Your task to perform on an android device: change notification settings in the gmail app Image 0: 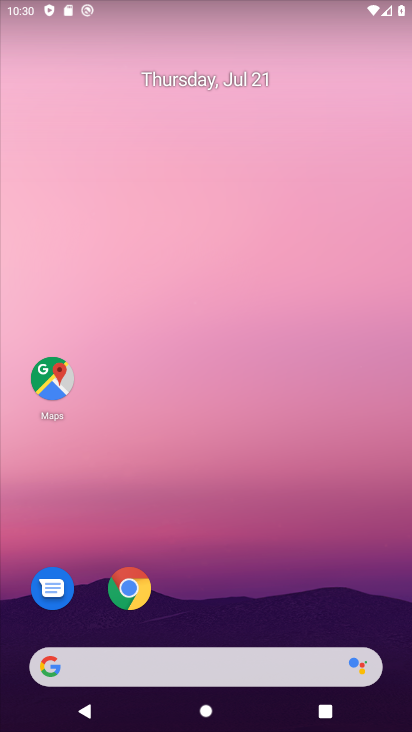
Step 0: drag from (163, 626) to (191, 408)
Your task to perform on an android device: change notification settings in the gmail app Image 1: 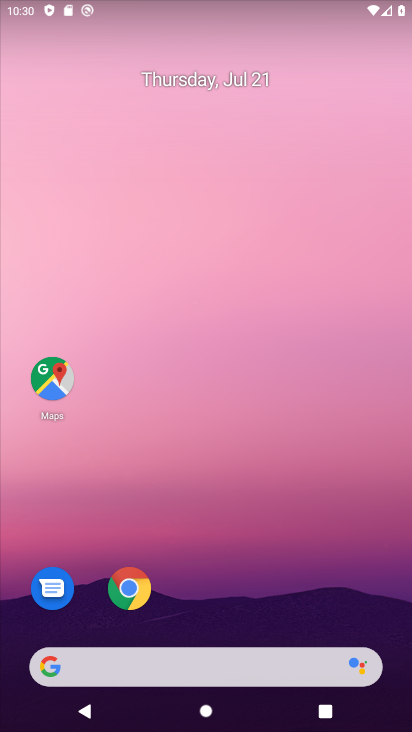
Step 1: drag from (211, 537) to (298, 44)
Your task to perform on an android device: change notification settings in the gmail app Image 2: 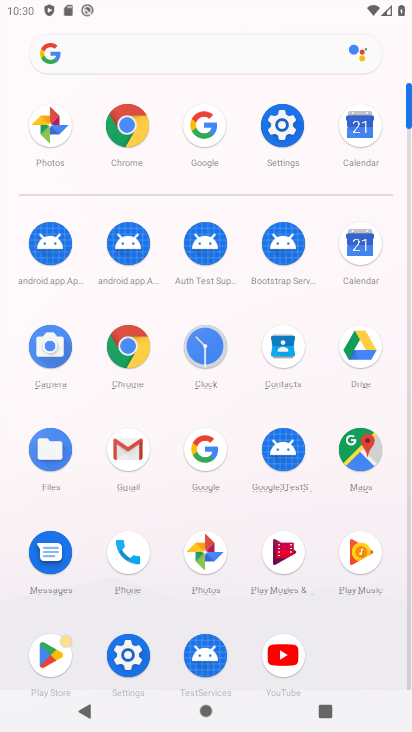
Step 2: click (125, 446)
Your task to perform on an android device: change notification settings in the gmail app Image 3: 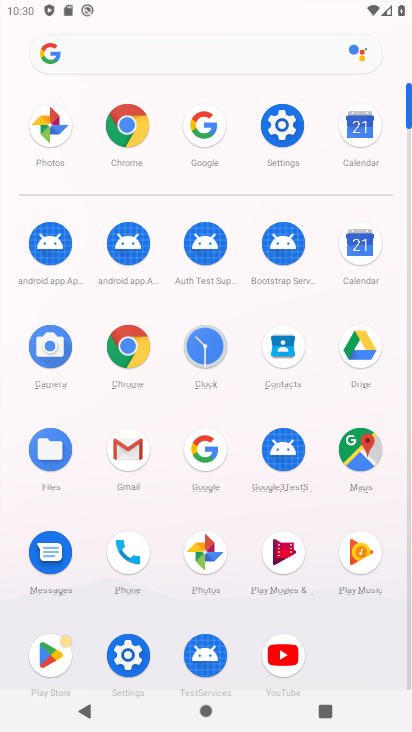
Step 3: click (125, 446)
Your task to perform on an android device: change notification settings in the gmail app Image 4: 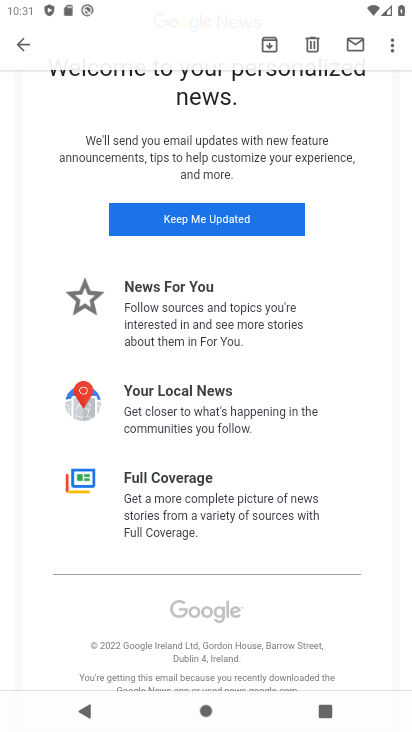
Step 4: drag from (269, 314) to (273, 709)
Your task to perform on an android device: change notification settings in the gmail app Image 5: 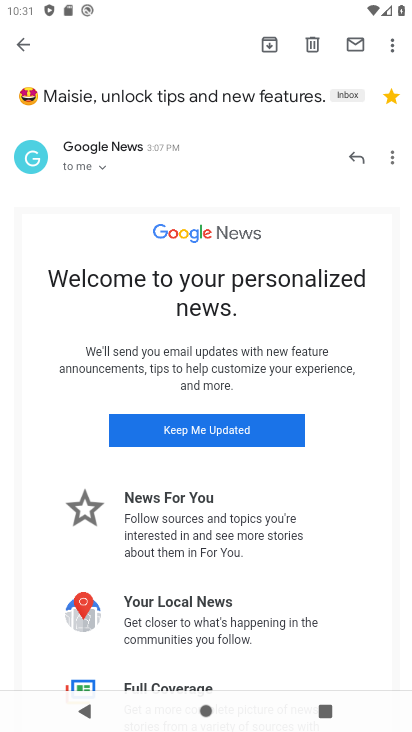
Step 5: click (32, 53)
Your task to perform on an android device: change notification settings in the gmail app Image 6: 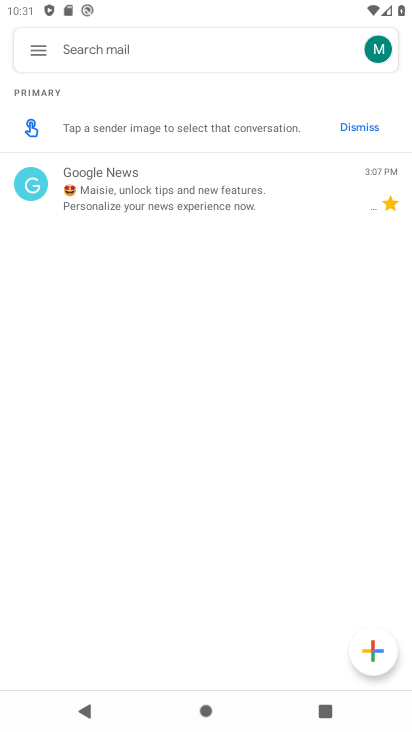
Step 6: click (38, 50)
Your task to perform on an android device: change notification settings in the gmail app Image 7: 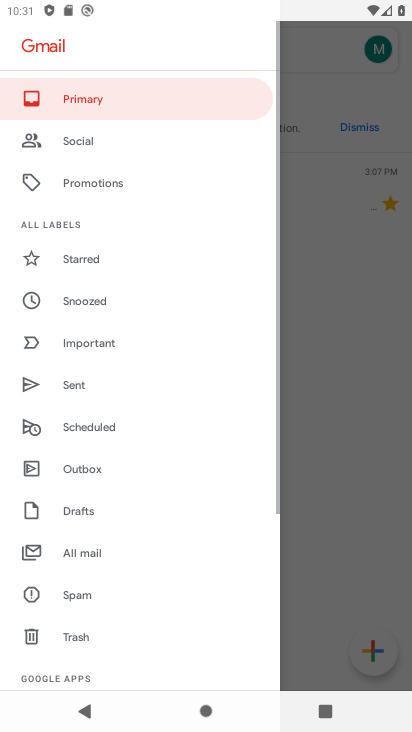
Step 7: drag from (112, 316) to (132, 20)
Your task to perform on an android device: change notification settings in the gmail app Image 8: 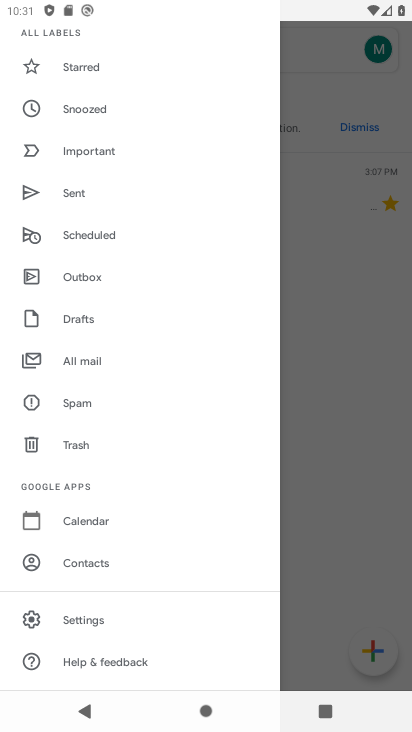
Step 8: click (110, 622)
Your task to perform on an android device: change notification settings in the gmail app Image 9: 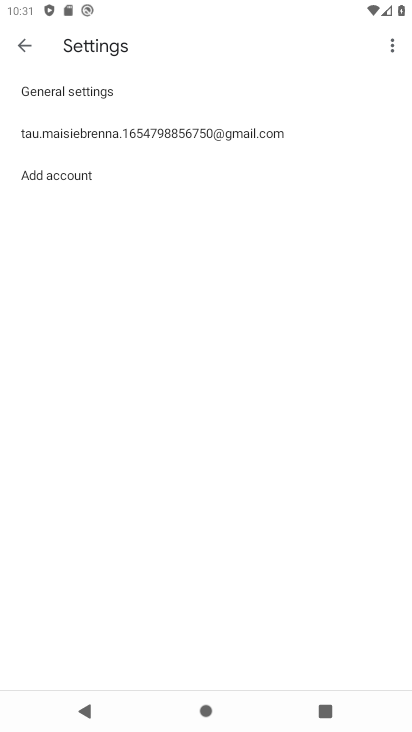
Step 9: click (106, 135)
Your task to perform on an android device: change notification settings in the gmail app Image 10: 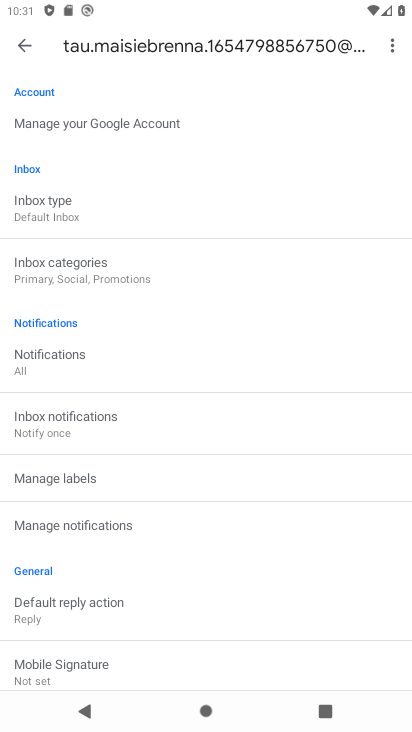
Step 10: click (109, 528)
Your task to perform on an android device: change notification settings in the gmail app Image 11: 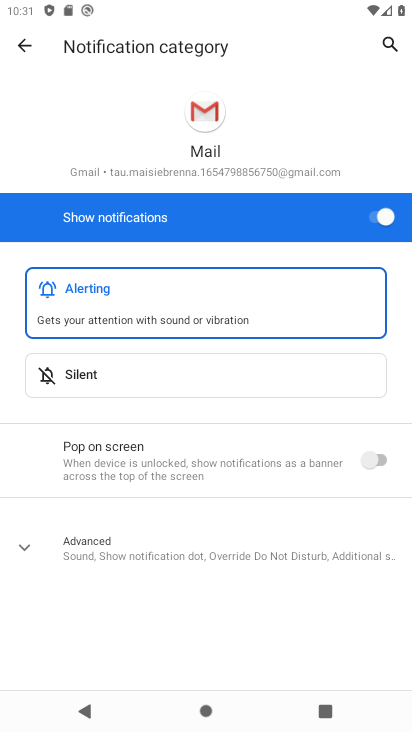
Step 11: click (378, 221)
Your task to perform on an android device: change notification settings in the gmail app Image 12: 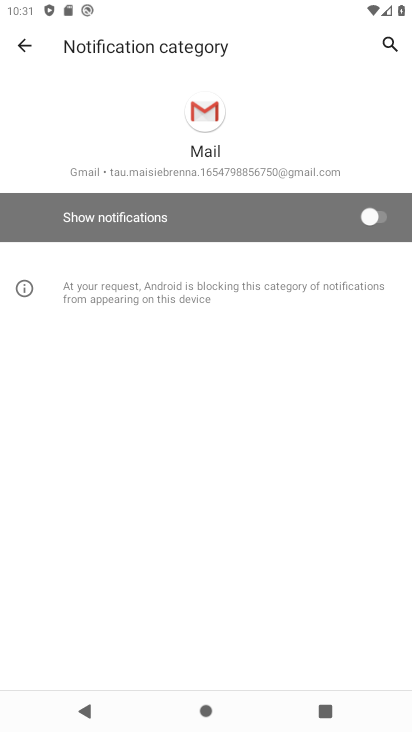
Step 12: task complete